Your task to perform on an android device: find photos in the google photos app Image 0: 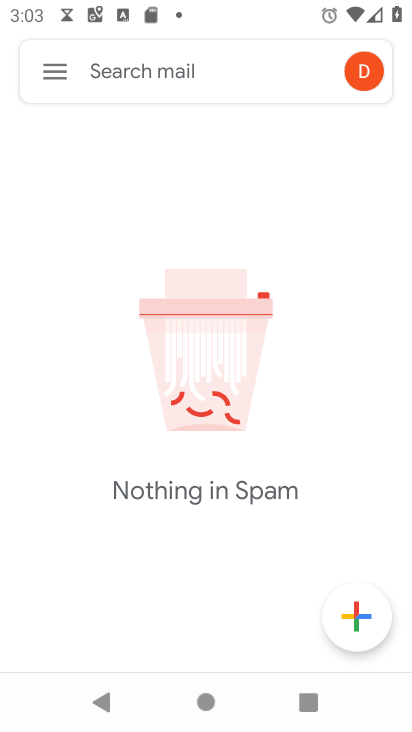
Step 0: press home button
Your task to perform on an android device: find photos in the google photos app Image 1: 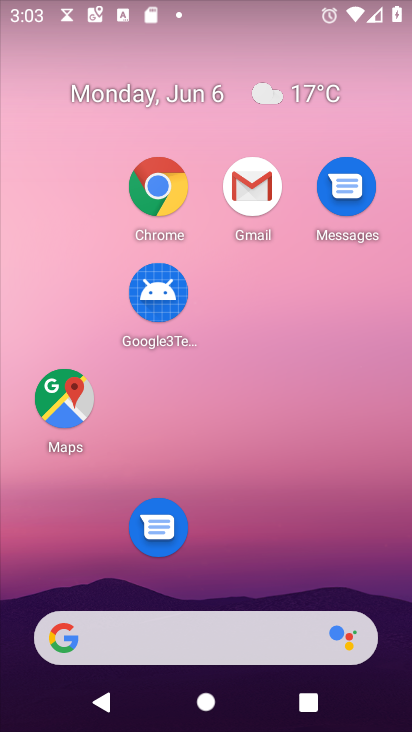
Step 1: drag from (281, 493) to (203, 89)
Your task to perform on an android device: find photos in the google photos app Image 2: 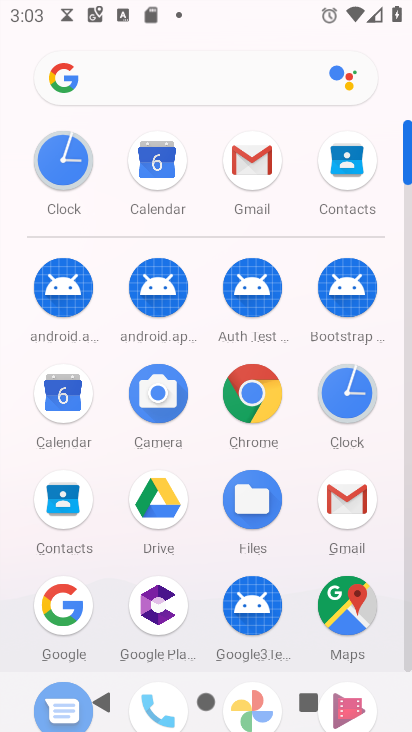
Step 2: click (403, 408)
Your task to perform on an android device: find photos in the google photos app Image 3: 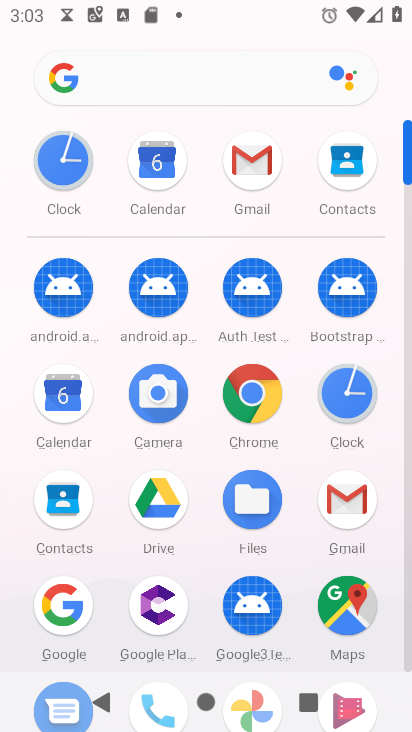
Step 3: click (410, 428)
Your task to perform on an android device: find photos in the google photos app Image 4: 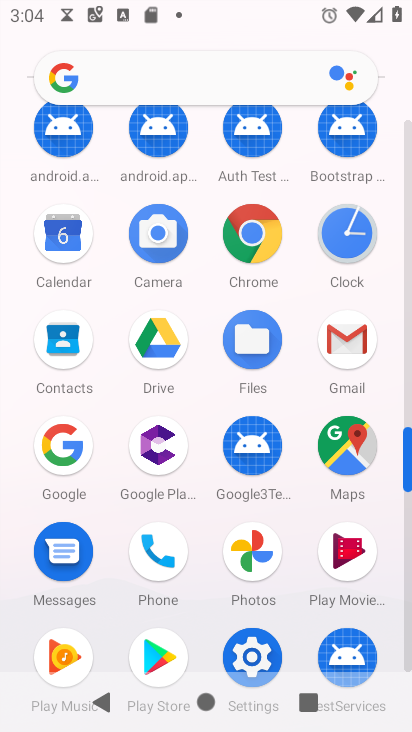
Step 4: click (252, 550)
Your task to perform on an android device: find photos in the google photos app Image 5: 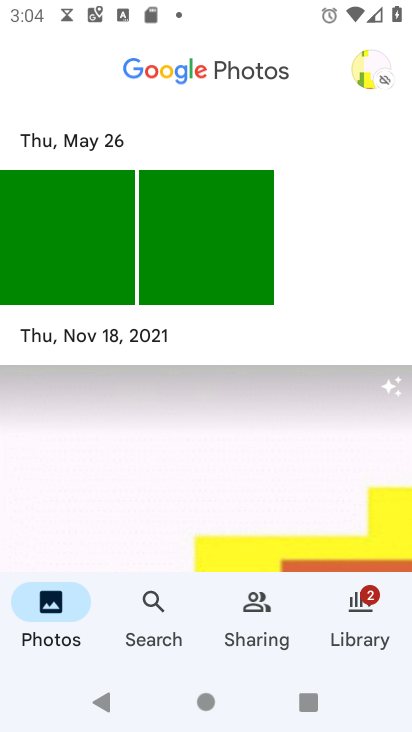
Step 5: task complete